Your task to perform on an android device: Go to calendar. Show me events next week Image 0: 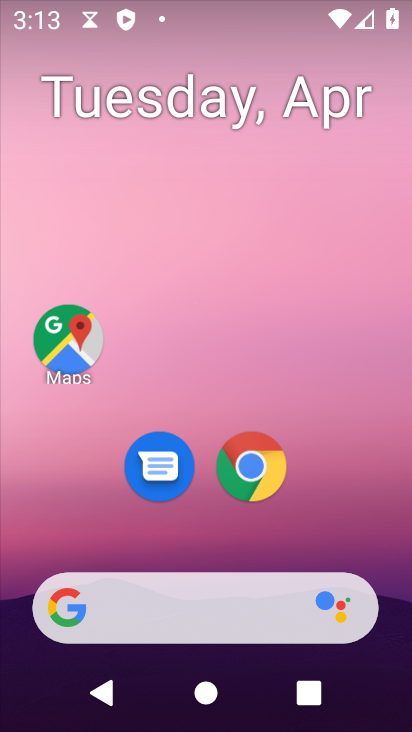
Step 0: drag from (391, 613) to (337, 71)
Your task to perform on an android device: Go to calendar. Show me events next week Image 1: 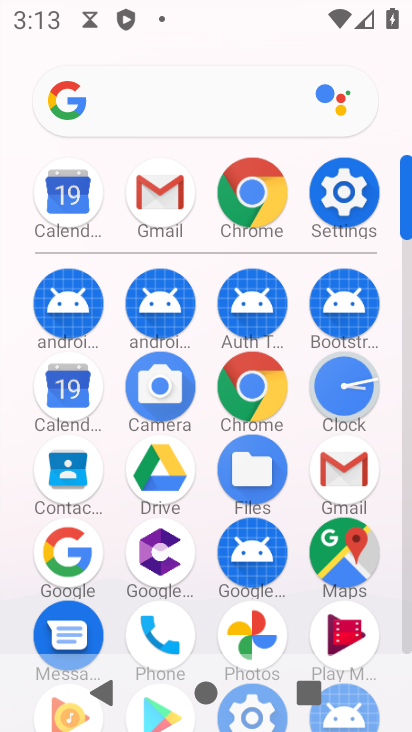
Step 1: drag from (7, 547) to (11, 233)
Your task to perform on an android device: Go to calendar. Show me events next week Image 2: 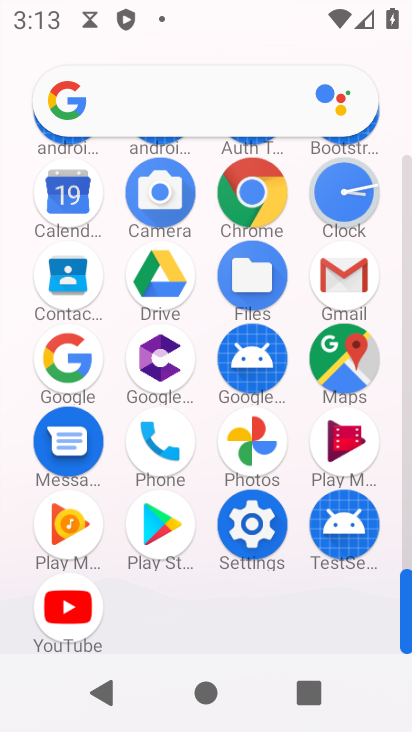
Step 2: drag from (19, 241) to (6, 469)
Your task to perform on an android device: Go to calendar. Show me events next week Image 3: 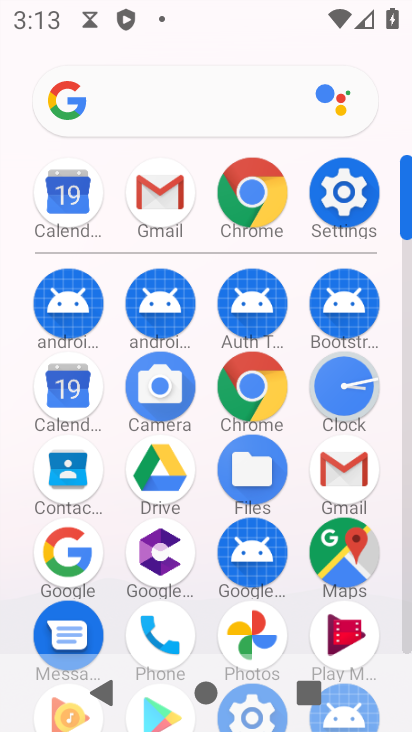
Step 3: click (73, 189)
Your task to perform on an android device: Go to calendar. Show me events next week Image 4: 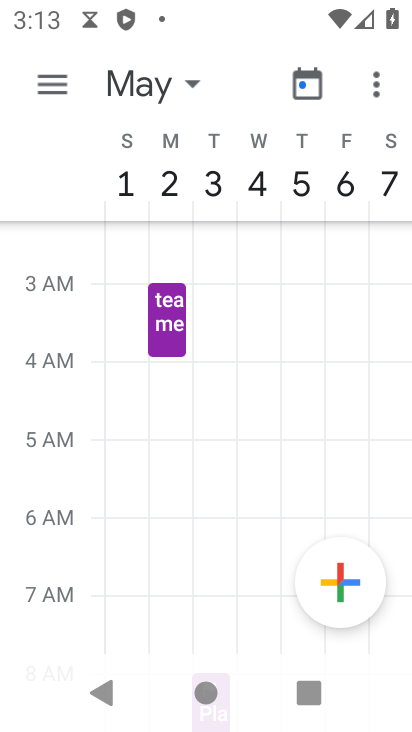
Step 4: click (307, 84)
Your task to perform on an android device: Go to calendar. Show me events next week Image 5: 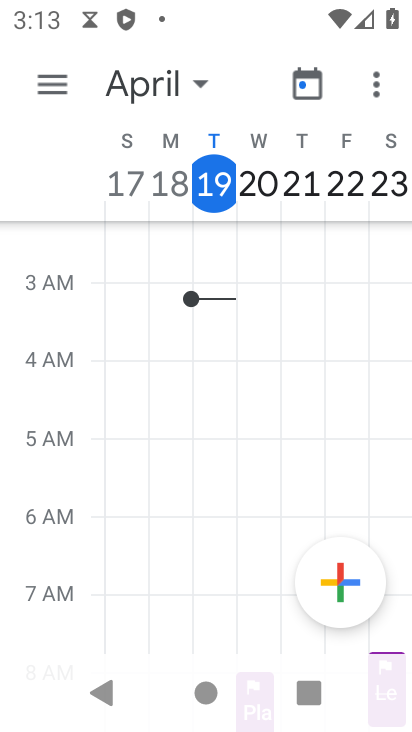
Step 5: click (221, 171)
Your task to perform on an android device: Go to calendar. Show me events next week Image 6: 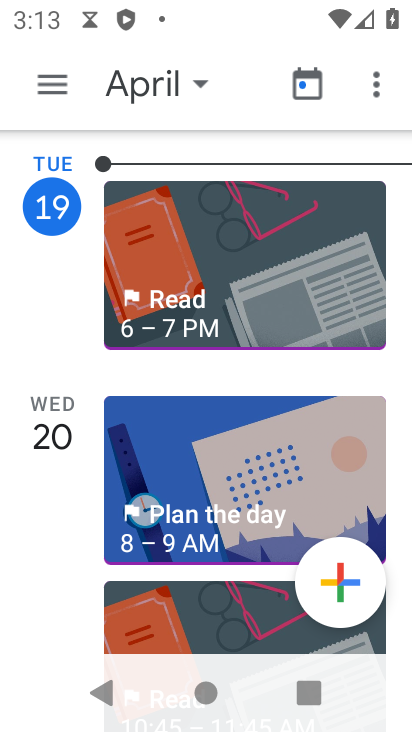
Step 6: click (44, 75)
Your task to perform on an android device: Go to calendar. Show me events next week Image 7: 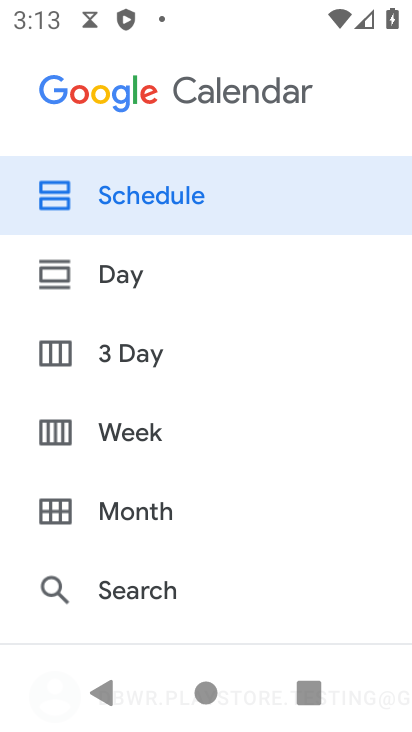
Step 7: click (127, 425)
Your task to perform on an android device: Go to calendar. Show me events next week Image 8: 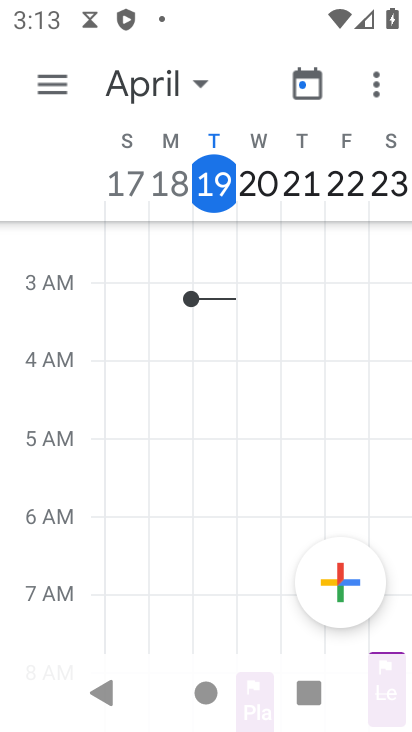
Step 8: drag from (403, 138) to (30, 123)
Your task to perform on an android device: Go to calendar. Show me events next week Image 9: 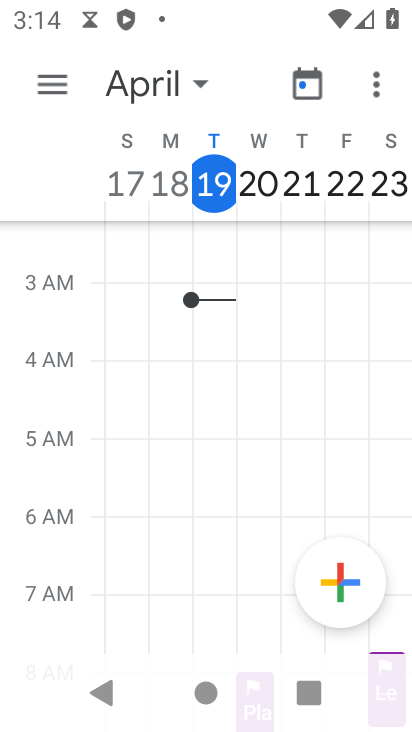
Step 9: drag from (401, 145) to (30, 178)
Your task to perform on an android device: Go to calendar. Show me events next week Image 10: 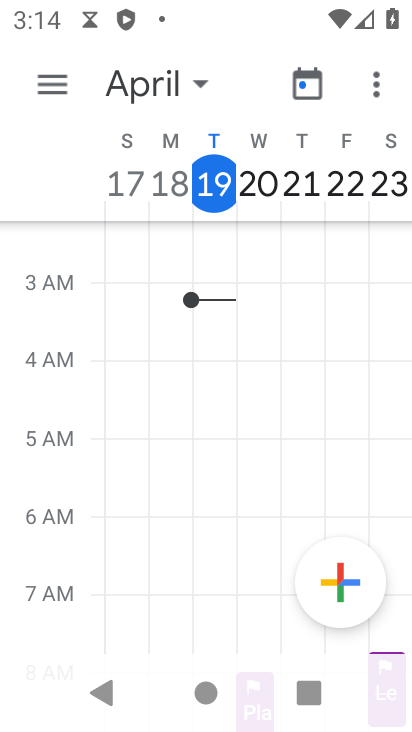
Step 10: drag from (398, 148) to (3, 150)
Your task to perform on an android device: Go to calendar. Show me events next week Image 11: 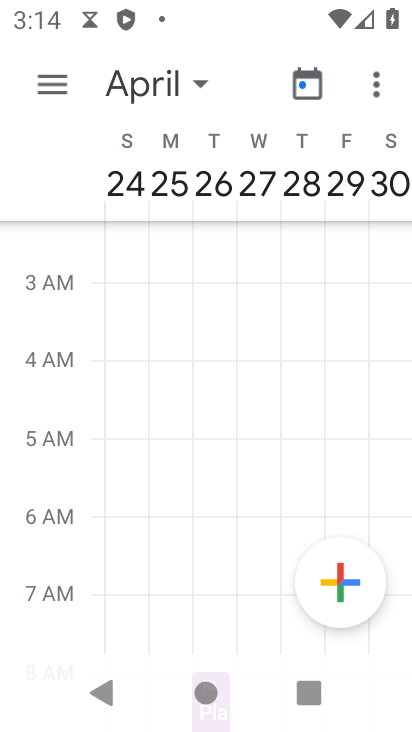
Step 11: click (55, 81)
Your task to perform on an android device: Go to calendar. Show me events next week Image 12: 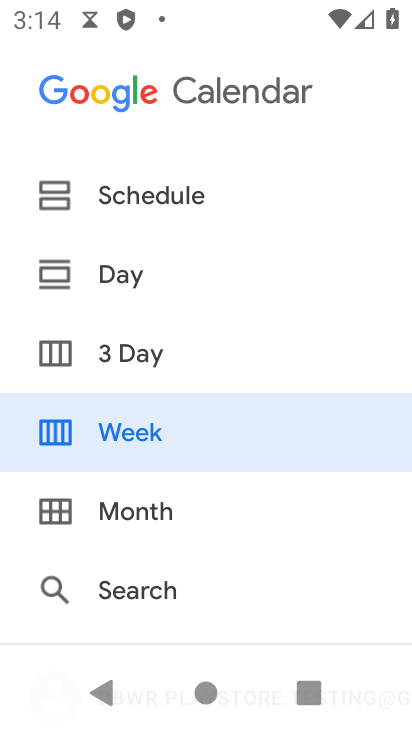
Step 12: task complete